Your task to perform on an android device: turn off airplane mode Image 0: 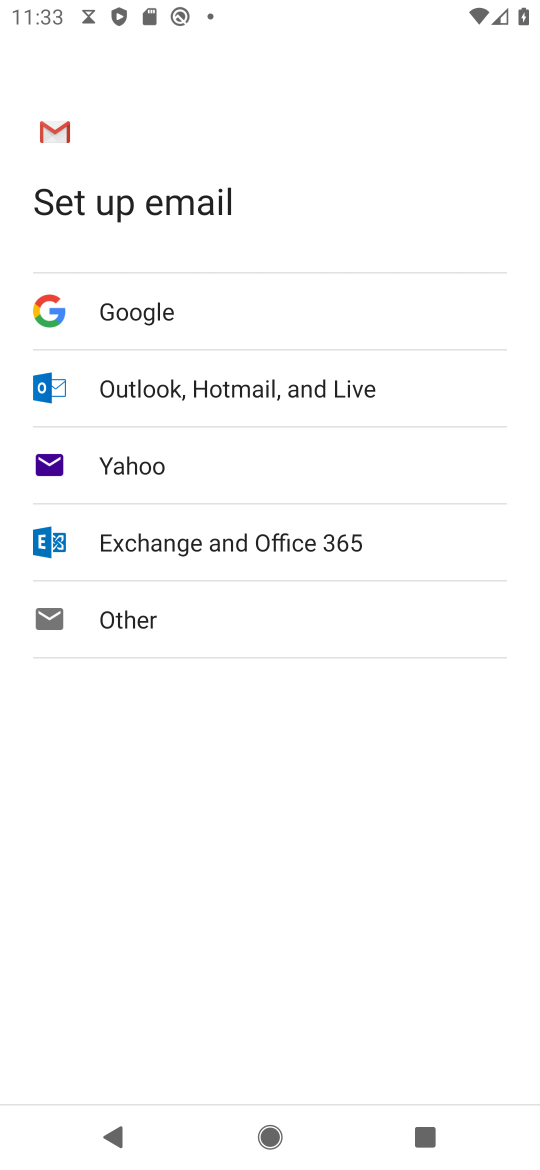
Step 0: press home button
Your task to perform on an android device: turn off airplane mode Image 1: 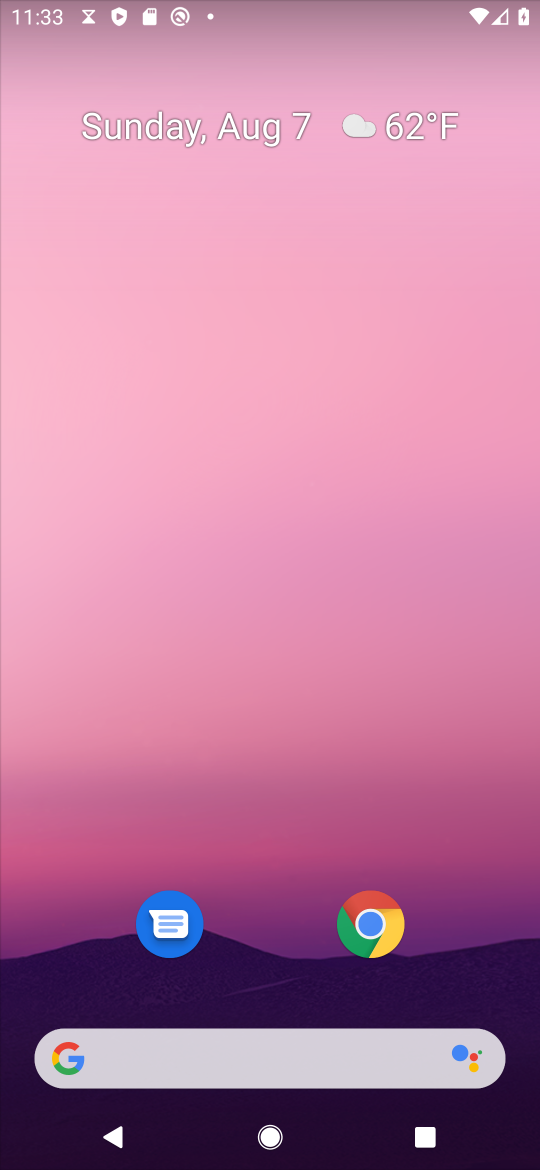
Step 1: drag from (251, 1044) to (313, 405)
Your task to perform on an android device: turn off airplane mode Image 2: 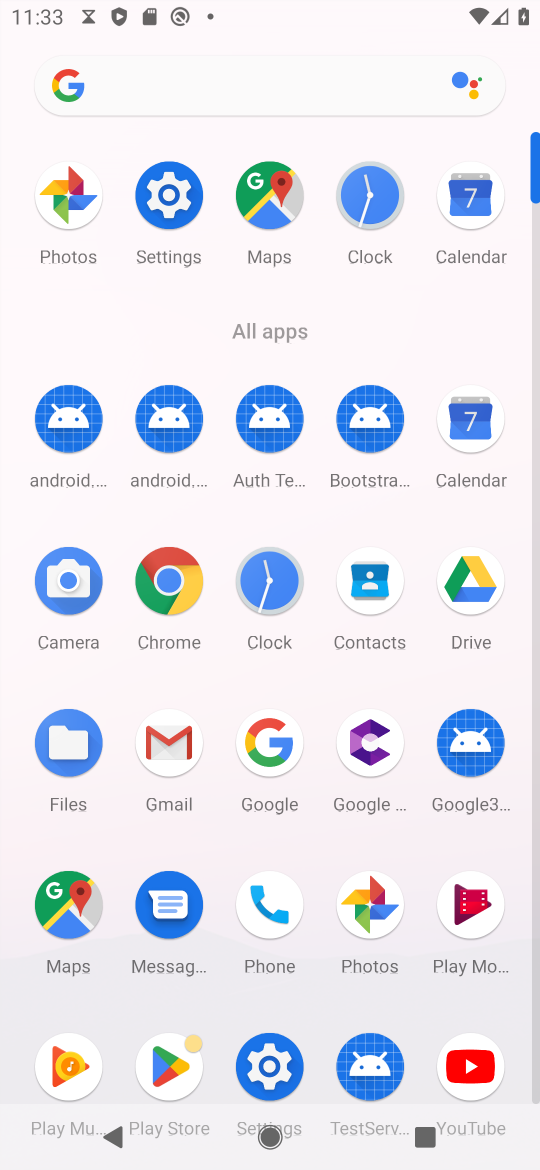
Step 2: click (159, 187)
Your task to perform on an android device: turn off airplane mode Image 3: 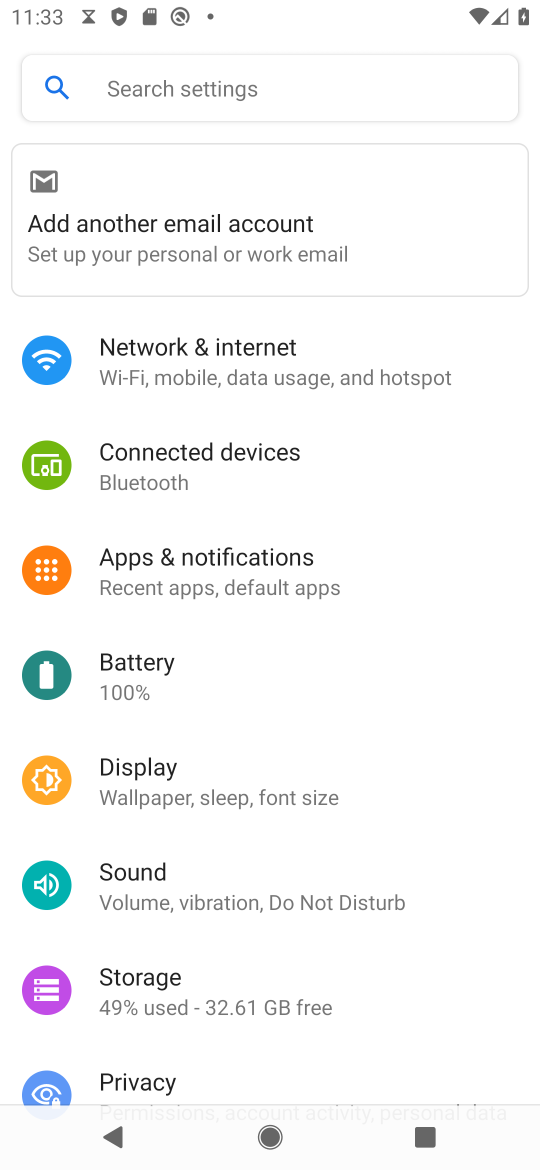
Step 3: click (162, 363)
Your task to perform on an android device: turn off airplane mode Image 4: 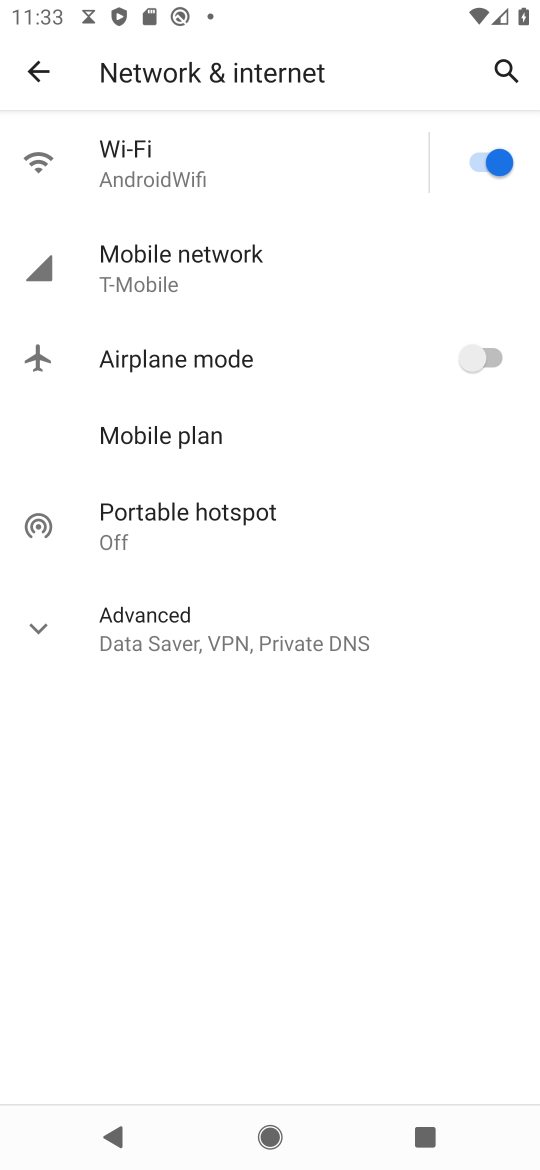
Step 4: task complete